Your task to perform on an android device: Clear all items from cart on amazon.com. Search for "lenovo thinkpad" on amazon.com, select the first entry, add it to the cart, then select checkout. Image 0: 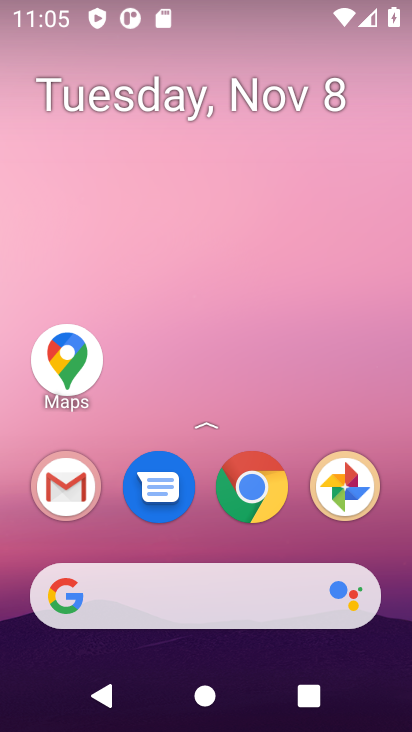
Step 0: click (131, 576)
Your task to perform on an android device: Clear all items from cart on amazon.com. Search for "lenovo thinkpad" on amazon.com, select the first entry, add it to the cart, then select checkout. Image 1: 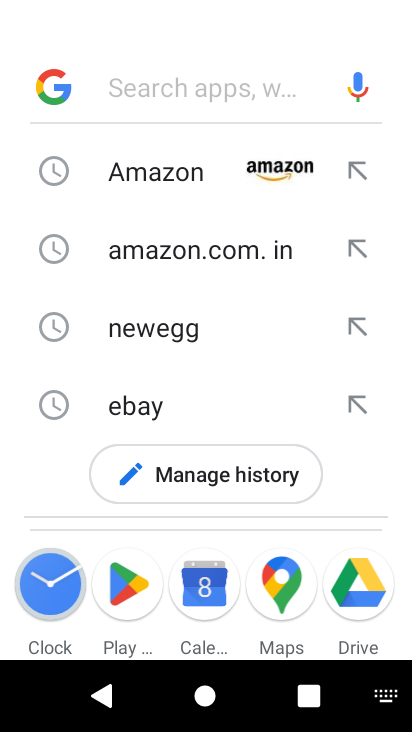
Step 1: click (194, 162)
Your task to perform on an android device: Clear all items from cart on amazon.com. Search for "lenovo thinkpad" on amazon.com, select the first entry, add it to the cart, then select checkout. Image 2: 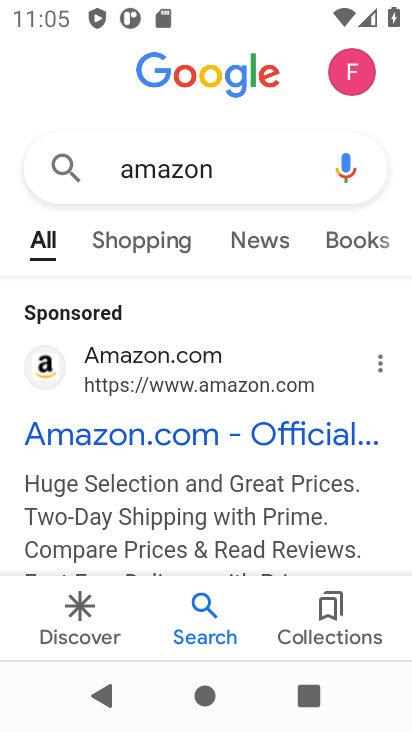
Step 2: click (111, 369)
Your task to perform on an android device: Clear all items from cart on amazon.com. Search for "lenovo thinkpad" on amazon.com, select the first entry, add it to the cart, then select checkout. Image 3: 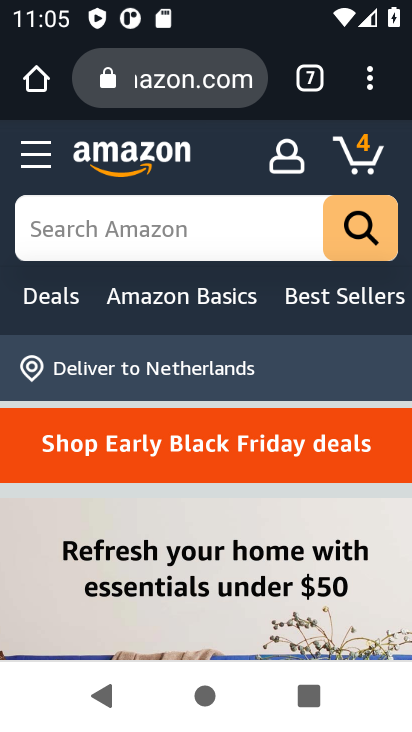
Step 3: click (194, 221)
Your task to perform on an android device: Clear all items from cart on amazon.com. Search for "lenovo thinkpad" on amazon.com, select the first entry, add it to the cart, then select checkout. Image 4: 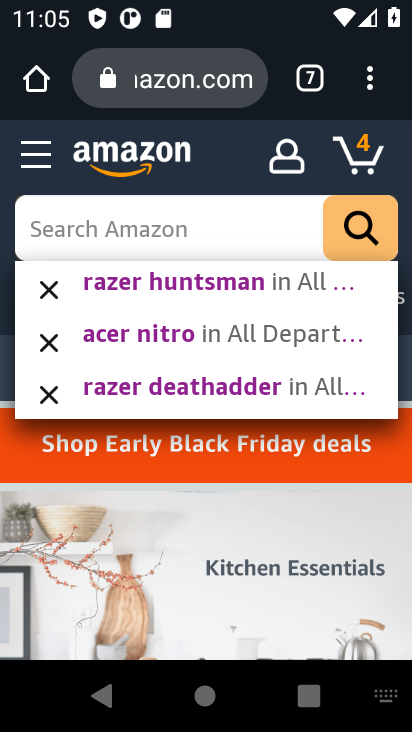
Step 4: type "lenovo thinkpad"
Your task to perform on an android device: Clear all items from cart on amazon.com. Search for "lenovo thinkpad" on amazon.com, select the first entry, add it to the cart, then select checkout. Image 5: 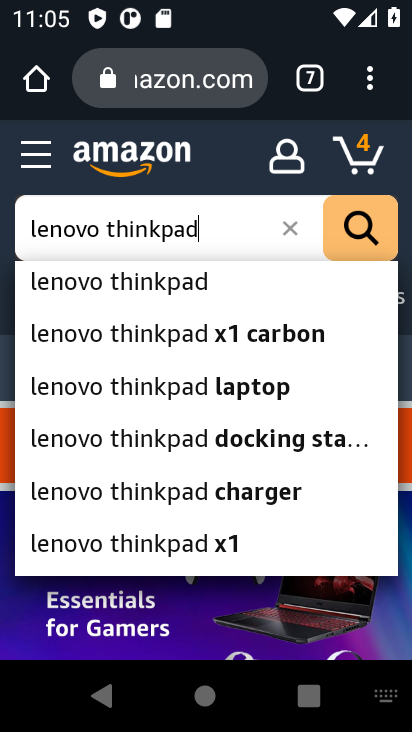
Step 5: click (175, 288)
Your task to perform on an android device: Clear all items from cart on amazon.com. Search for "lenovo thinkpad" on amazon.com, select the first entry, add it to the cart, then select checkout. Image 6: 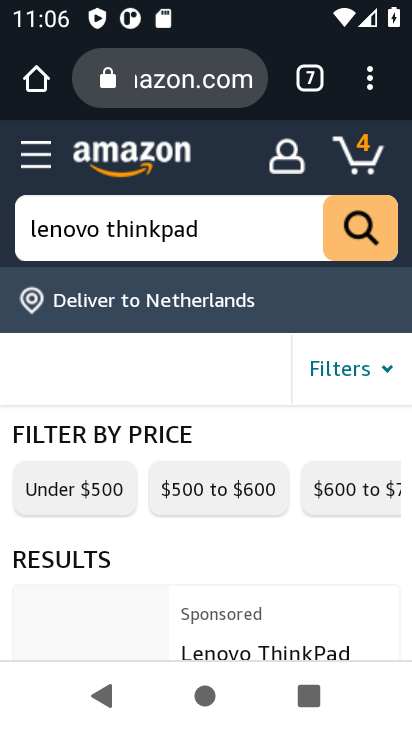
Step 6: drag from (291, 592) to (272, 290)
Your task to perform on an android device: Clear all items from cart on amazon.com. Search for "lenovo thinkpad" on amazon.com, select the first entry, add it to the cart, then select checkout. Image 7: 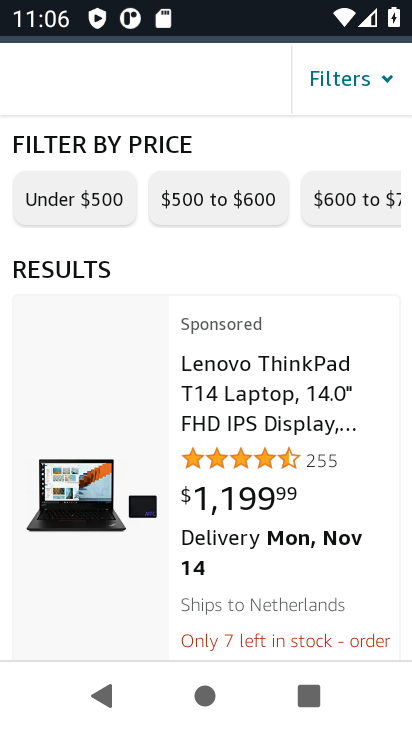
Step 7: click (223, 388)
Your task to perform on an android device: Clear all items from cart on amazon.com. Search for "lenovo thinkpad" on amazon.com, select the first entry, add it to the cart, then select checkout. Image 8: 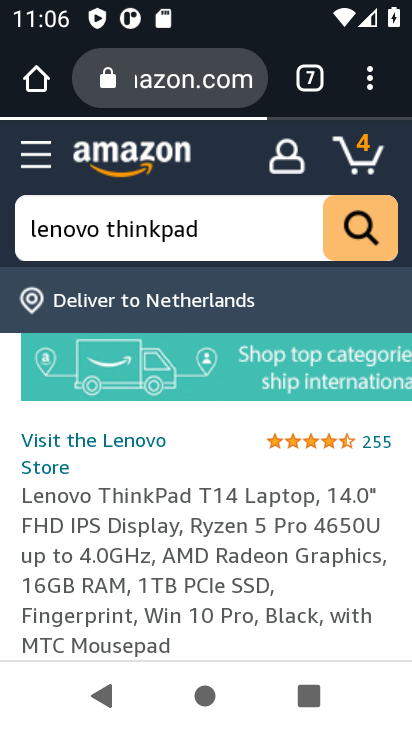
Step 8: click (255, 539)
Your task to perform on an android device: Clear all items from cart on amazon.com. Search for "lenovo thinkpad" on amazon.com, select the first entry, add it to the cart, then select checkout. Image 9: 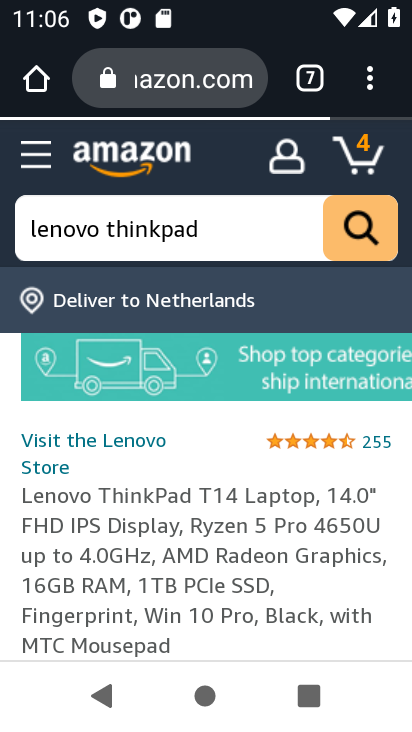
Step 9: drag from (196, 596) to (196, 434)
Your task to perform on an android device: Clear all items from cart on amazon.com. Search for "lenovo thinkpad" on amazon.com, select the first entry, add it to the cart, then select checkout. Image 10: 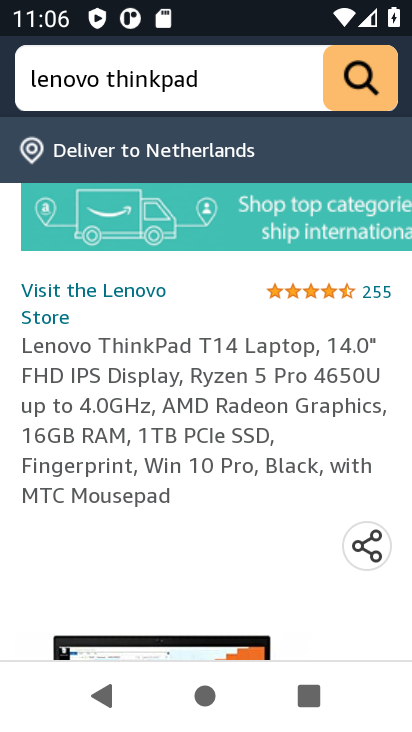
Step 10: drag from (198, 618) to (193, 472)
Your task to perform on an android device: Clear all items from cart on amazon.com. Search for "lenovo thinkpad" on amazon.com, select the first entry, add it to the cart, then select checkout. Image 11: 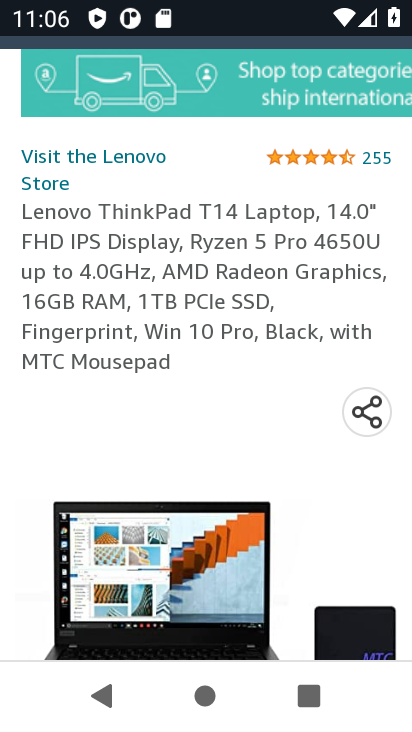
Step 11: drag from (260, 470) to (264, 379)
Your task to perform on an android device: Clear all items from cart on amazon.com. Search for "lenovo thinkpad" on amazon.com, select the first entry, add it to the cart, then select checkout. Image 12: 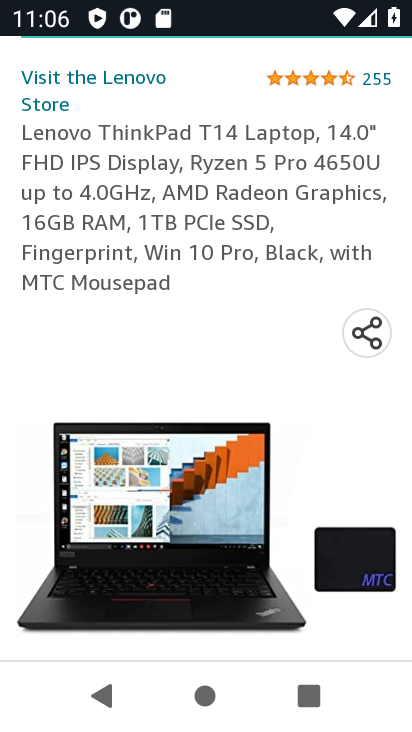
Step 12: drag from (280, 490) to (236, 217)
Your task to perform on an android device: Clear all items from cart on amazon.com. Search for "lenovo thinkpad" on amazon.com, select the first entry, add it to the cart, then select checkout. Image 13: 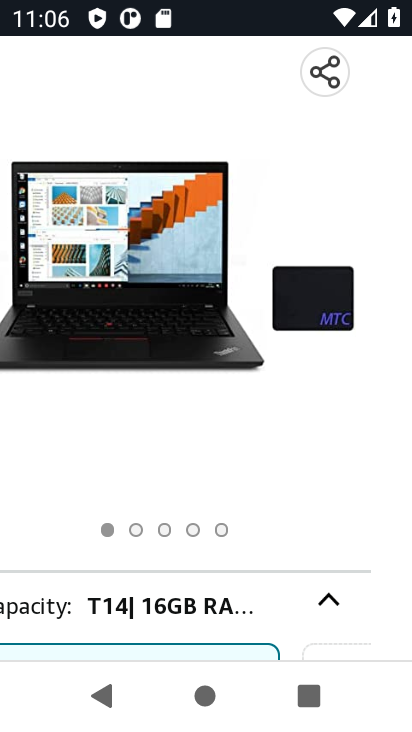
Step 13: drag from (271, 524) to (252, 150)
Your task to perform on an android device: Clear all items from cart on amazon.com. Search for "lenovo thinkpad" on amazon.com, select the first entry, add it to the cart, then select checkout. Image 14: 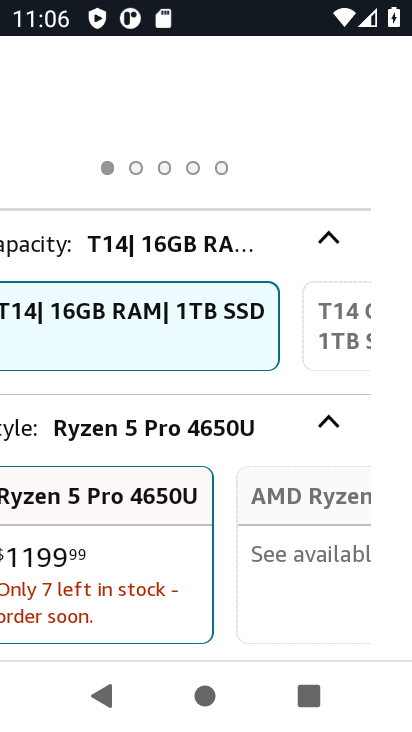
Step 14: drag from (230, 514) to (247, 302)
Your task to perform on an android device: Clear all items from cart on amazon.com. Search for "lenovo thinkpad" on amazon.com, select the first entry, add it to the cart, then select checkout. Image 15: 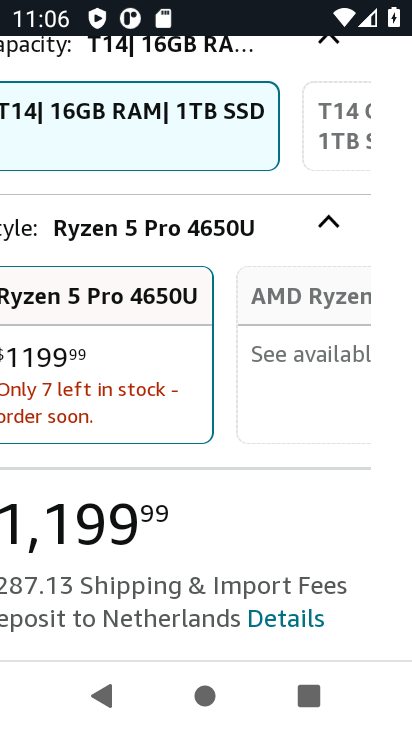
Step 15: drag from (182, 508) to (267, 190)
Your task to perform on an android device: Clear all items from cart on amazon.com. Search for "lenovo thinkpad" on amazon.com, select the first entry, add it to the cart, then select checkout. Image 16: 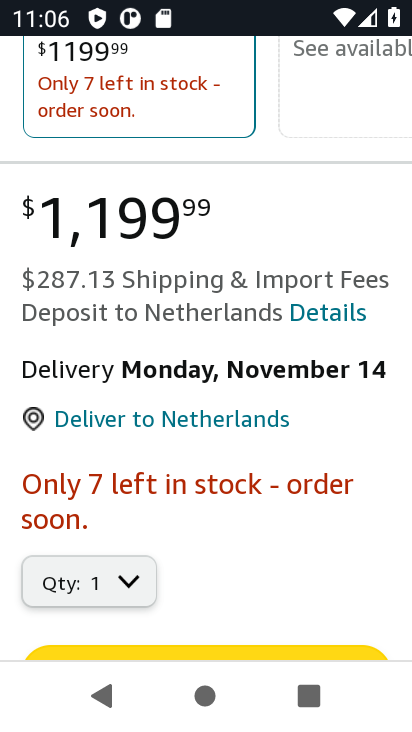
Step 16: drag from (201, 520) to (249, 257)
Your task to perform on an android device: Clear all items from cart on amazon.com. Search for "lenovo thinkpad" on amazon.com, select the first entry, add it to the cart, then select checkout. Image 17: 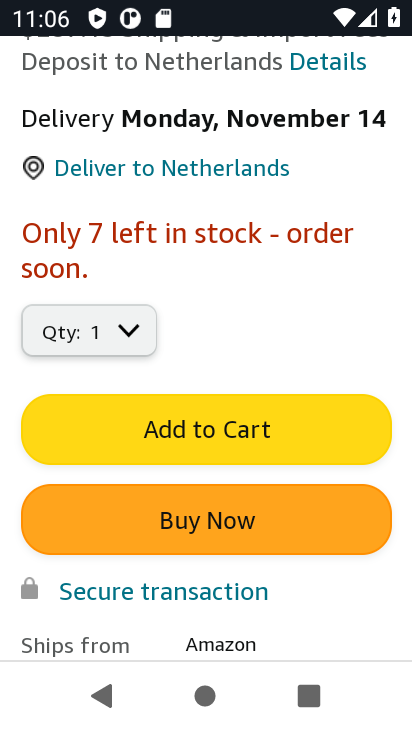
Step 17: click (215, 432)
Your task to perform on an android device: Clear all items from cart on amazon.com. Search for "lenovo thinkpad" on amazon.com, select the first entry, add it to the cart, then select checkout. Image 18: 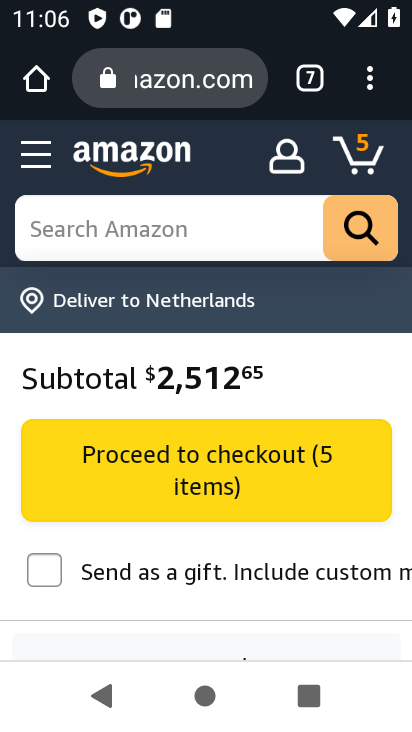
Step 18: click (198, 461)
Your task to perform on an android device: Clear all items from cart on amazon.com. Search for "lenovo thinkpad" on amazon.com, select the first entry, add it to the cart, then select checkout. Image 19: 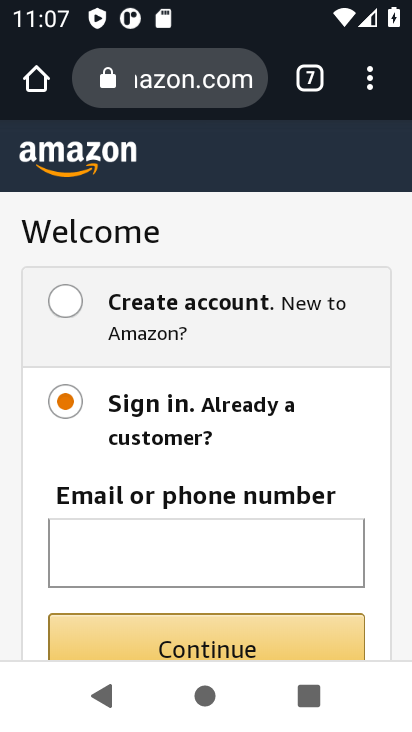
Step 19: task complete